Your task to perform on an android device: visit the assistant section in the google photos Image 0: 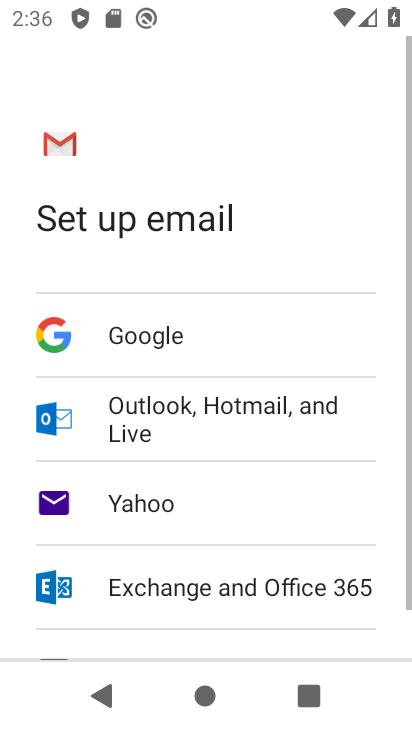
Step 0: press home button
Your task to perform on an android device: visit the assistant section in the google photos Image 1: 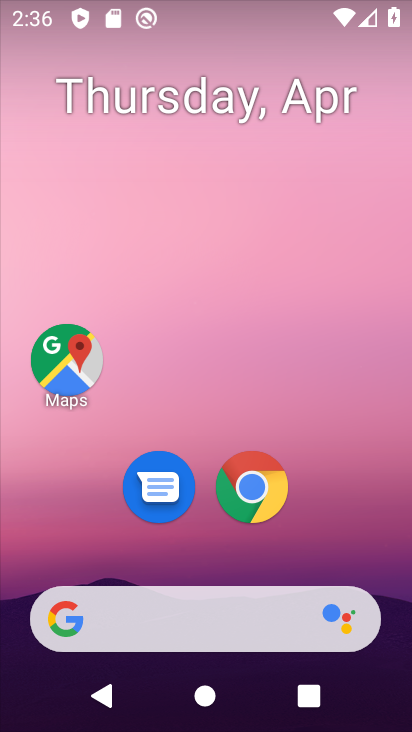
Step 1: drag from (288, 612) to (290, 311)
Your task to perform on an android device: visit the assistant section in the google photos Image 2: 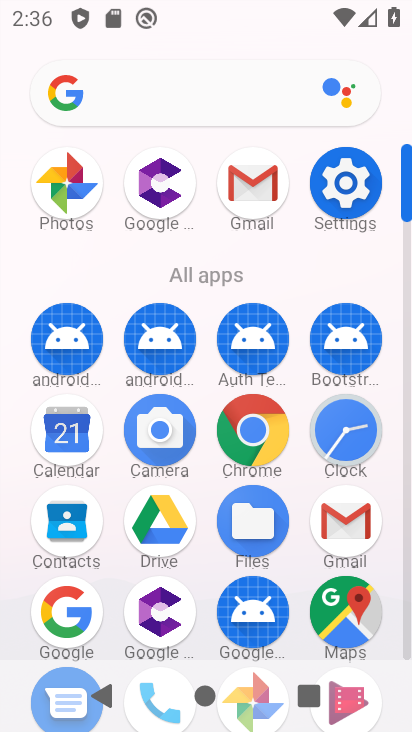
Step 2: drag from (260, 628) to (277, 459)
Your task to perform on an android device: visit the assistant section in the google photos Image 3: 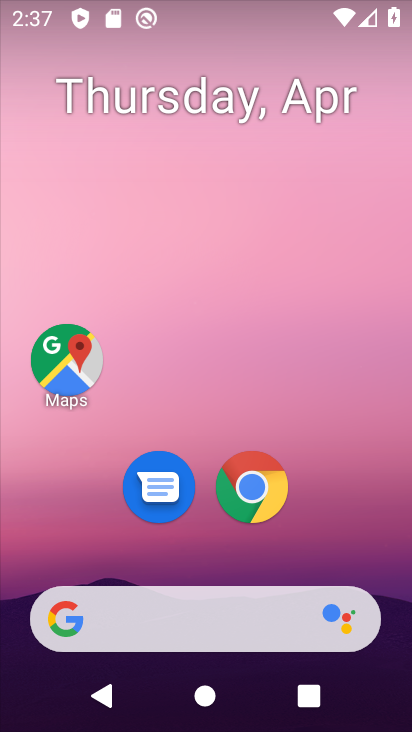
Step 3: drag from (262, 581) to (330, 271)
Your task to perform on an android device: visit the assistant section in the google photos Image 4: 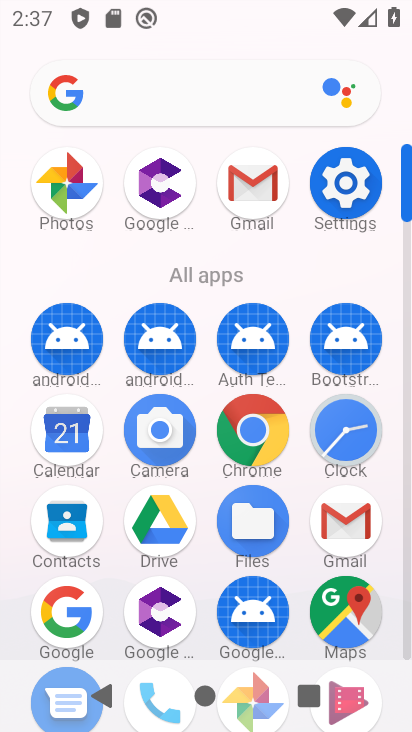
Step 4: drag from (301, 424) to (318, 225)
Your task to perform on an android device: visit the assistant section in the google photos Image 5: 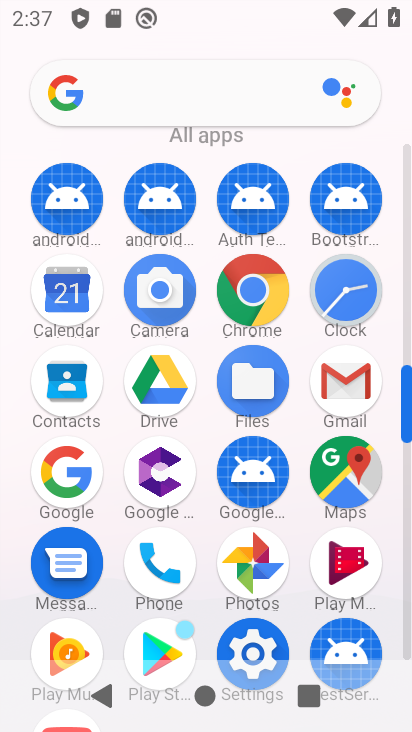
Step 5: click (265, 550)
Your task to perform on an android device: visit the assistant section in the google photos Image 6: 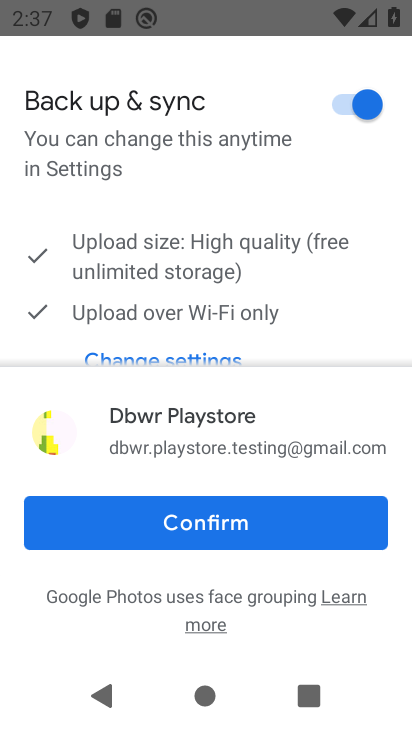
Step 6: click (245, 521)
Your task to perform on an android device: visit the assistant section in the google photos Image 7: 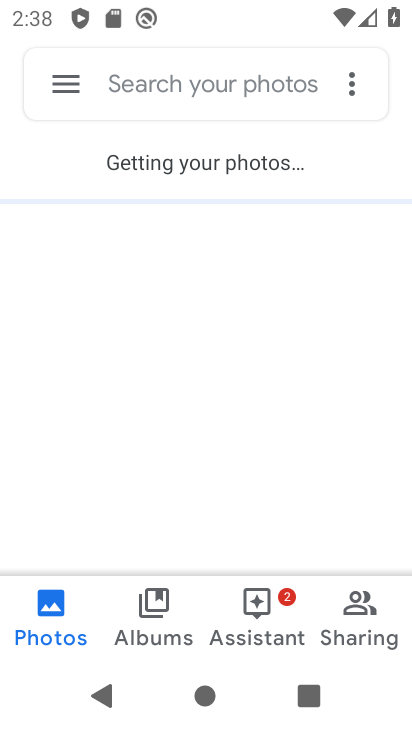
Step 7: click (273, 604)
Your task to perform on an android device: visit the assistant section in the google photos Image 8: 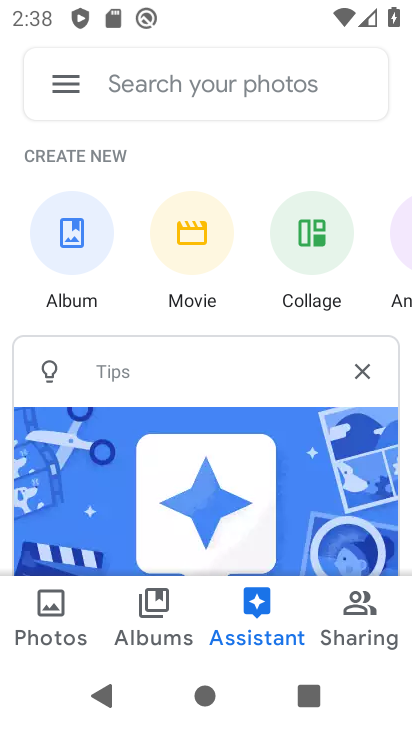
Step 8: task complete